Your task to perform on an android device: see sites visited before in the chrome app Image 0: 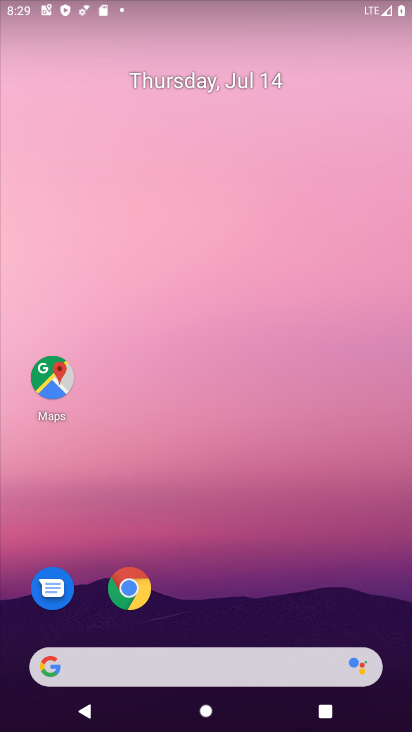
Step 0: drag from (323, 581) to (226, 40)
Your task to perform on an android device: see sites visited before in the chrome app Image 1: 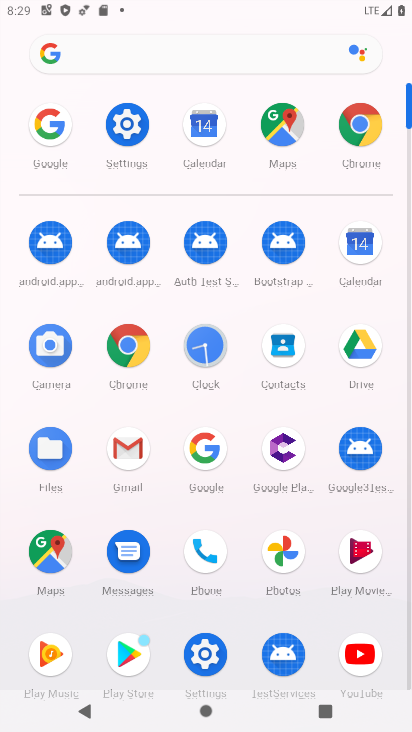
Step 1: click (354, 111)
Your task to perform on an android device: see sites visited before in the chrome app Image 2: 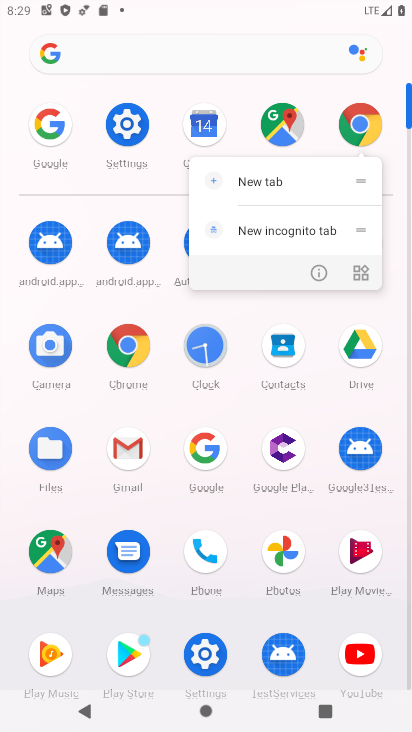
Step 2: click (354, 111)
Your task to perform on an android device: see sites visited before in the chrome app Image 3: 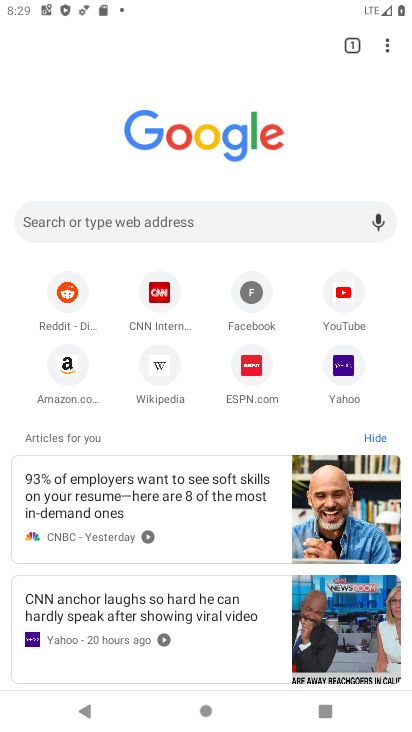
Step 3: task complete